Your task to perform on an android device: choose inbox layout in the gmail app Image 0: 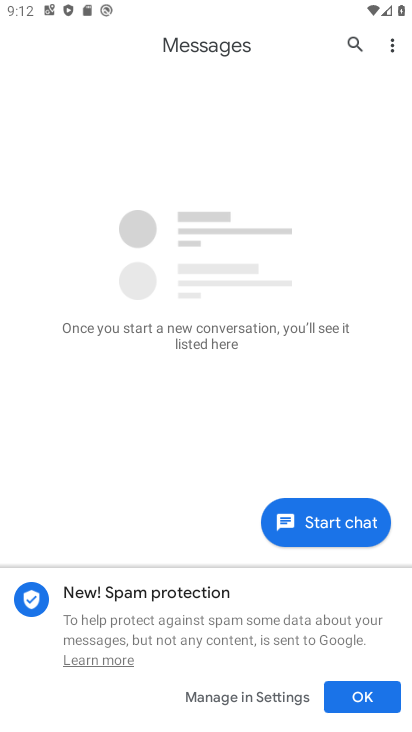
Step 0: press home button
Your task to perform on an android device: choose inbox layout in the gmail app Image 1: 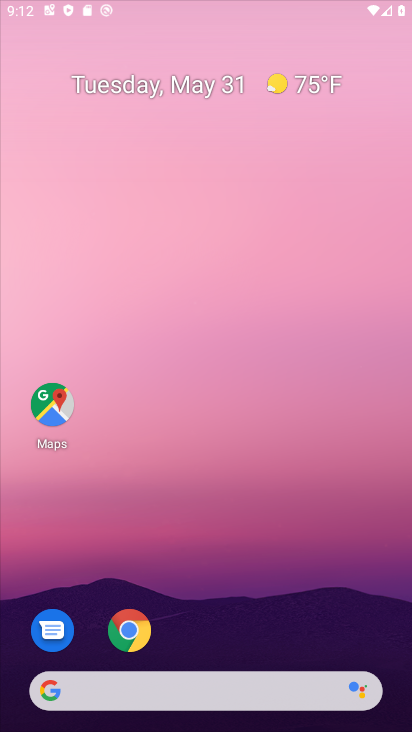
Step 1: drag from (224, 612) to (222, 168)
Your task to perform on an android device: choose inbox layout in the gmail app Image 2: 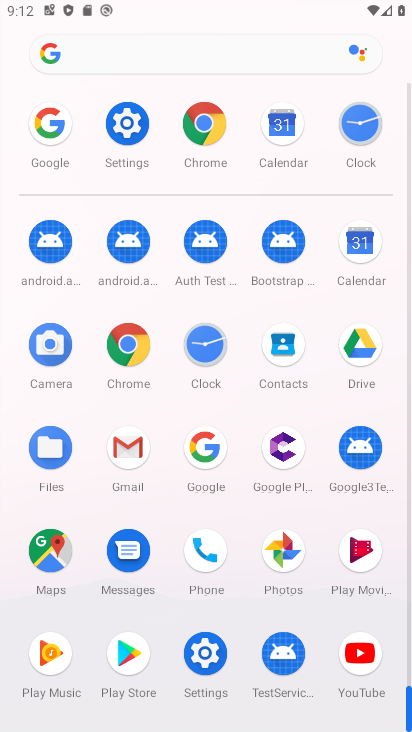
Step 2: click (138, 470)
Your task to perform on an android device: choose inbox layout in the gmail app Image 3: 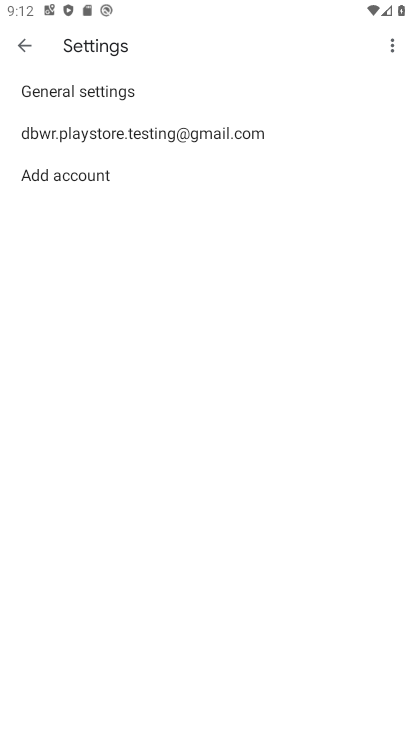
Step 3: click (124, 132)
Your task to perform on an android device: choose inbox layout in the gmail app Image 4: 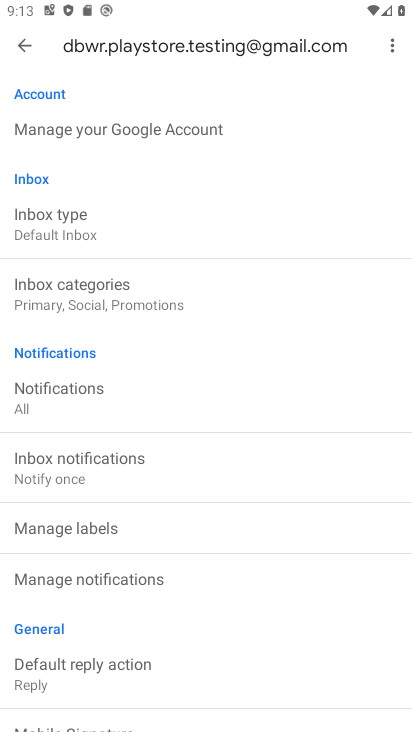
Step 4: task complete